Your task to perform on an android device: make emails show in primary in the gmail app Image 0: 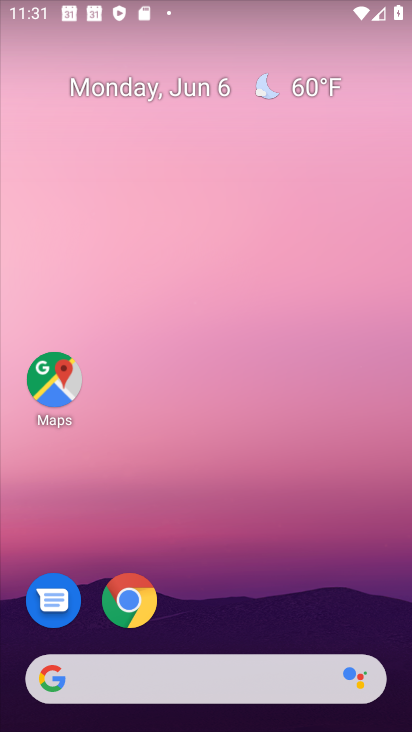
Step 0: drag from (220, 703) to (193, 114)
Your task to perform on an android device: make emails show in primary in the gmail app Image 1: 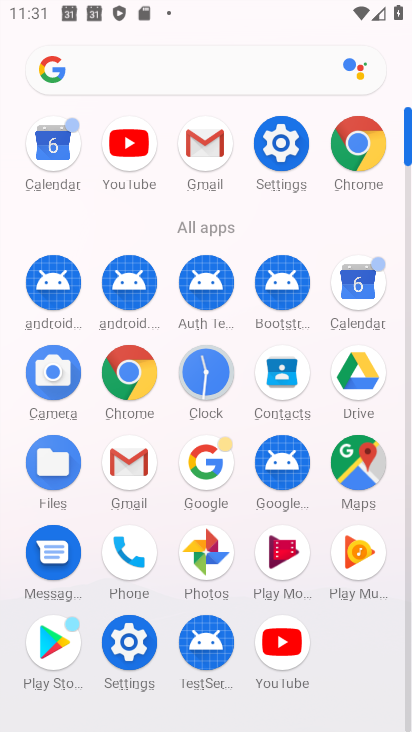
Step 1: click (204, 136)
Your task to perform on an android device: make emails show in primary in the gmail app Image 2: 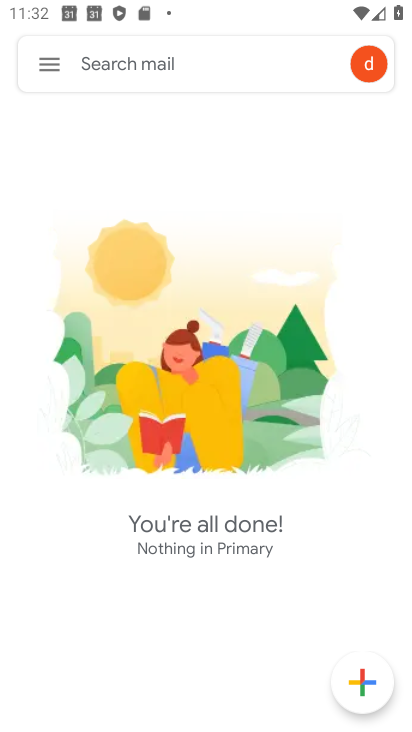
Step 2: click (41, 67)
Your task to perform on an android device: make emails show in primary in the gmail app Image 3: 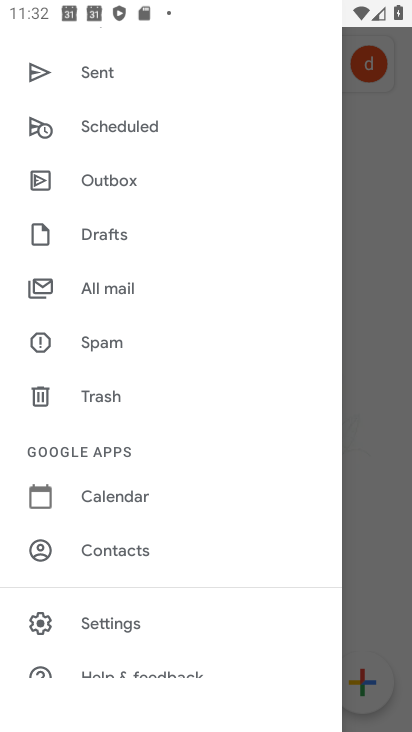
Step 3: click (109, 623)
Your task to perform on an android device: make emails show in primary in the gmail app Image 4: 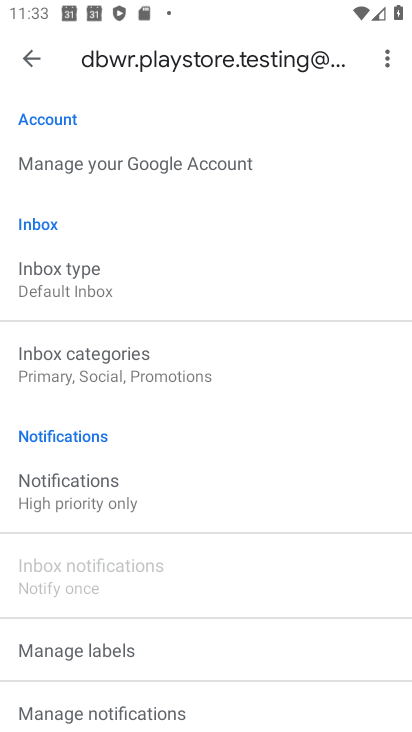
Step 4: click (69, 373)
Your task to perform on an android device: make emails show in primary in the gmail app Image 5: 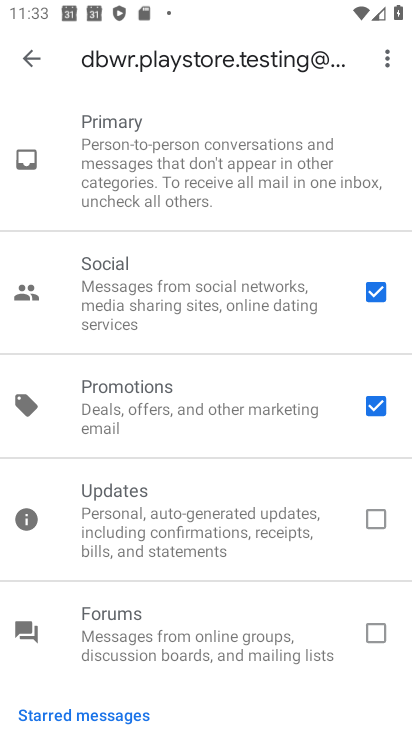
Step 5: click (371, 289)
Your task to perform on an android device: make emails show in primary in the gmail app Image 6: 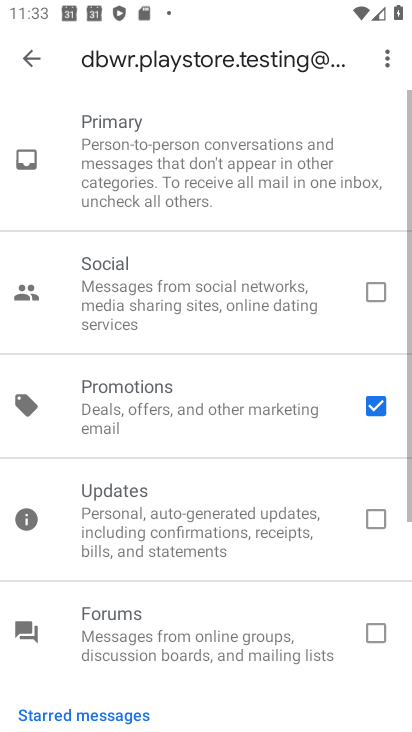
Step 6: click (373, 403)
Your task to perform on an android device: make emails show in primary in the gmail app Image 7: 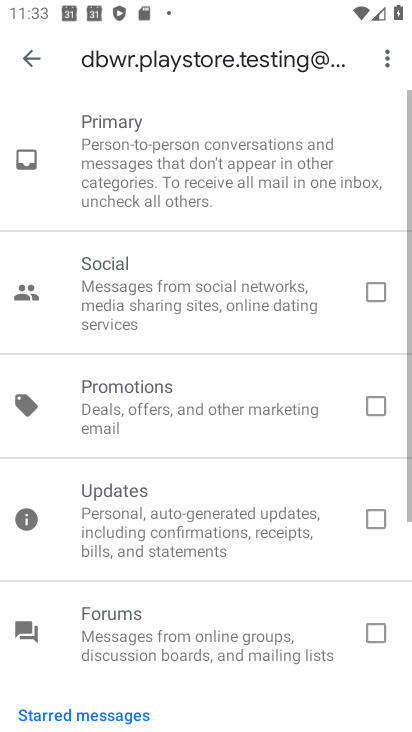
Step 7: click (37, 56)
Your task to perform on an android device: make emails show in primary in the gmail app Image 8: 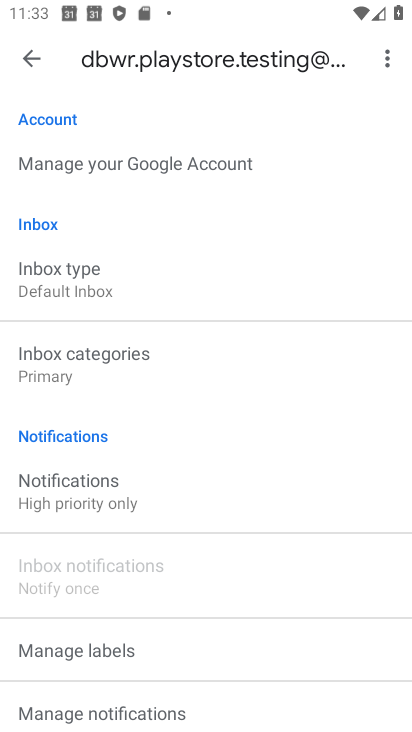
Step 8: task complete